Your task to perform on an android device: change alarm snooze length Image 0: 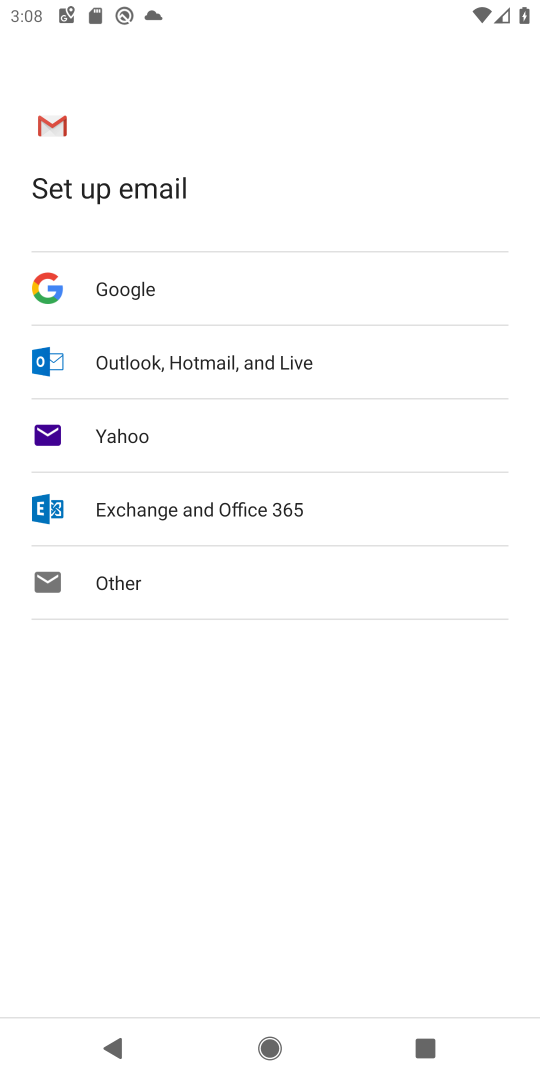
Step 0: press home button
Your task to perform on an android device: change alarm snooze length Image 1: 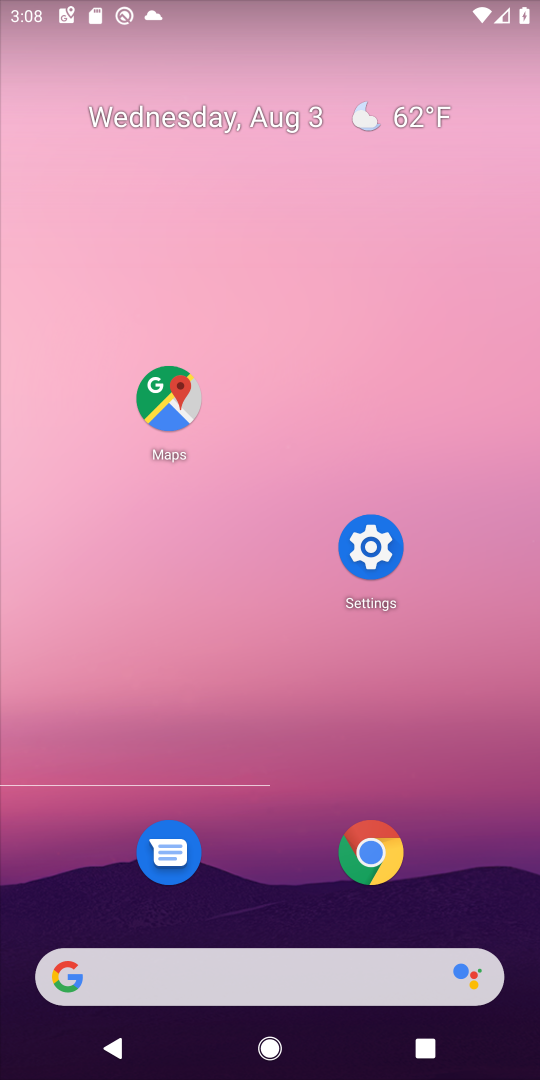
Step 1: drag from (218, 974) to (220, 109)
Your task to perform on an android device: change alarm snooze length Image 2: 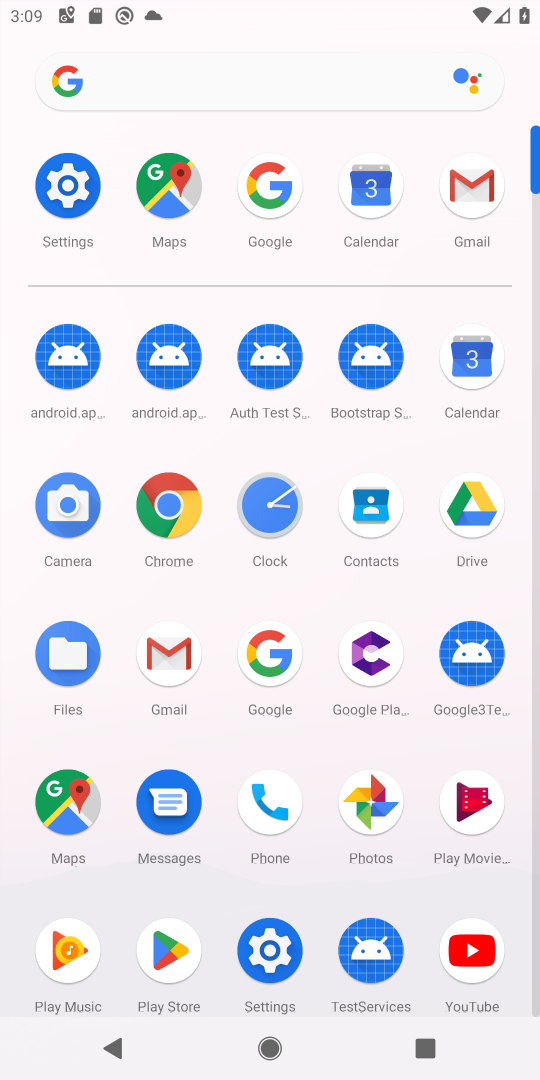
Step 2: click (262, 492)
Your task to perform on an android device: change alarm snooze length Image 3: 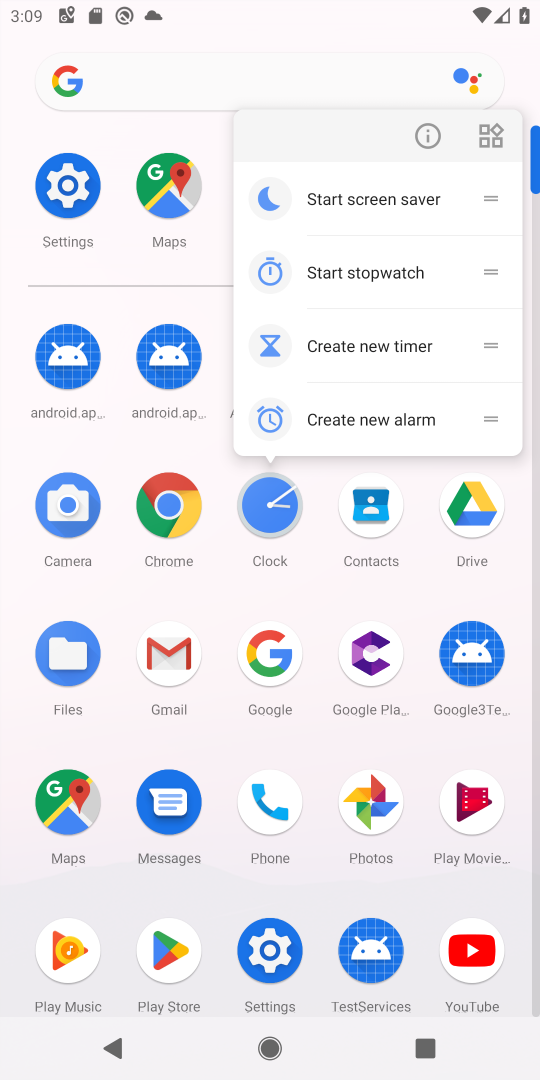
Step 3: click (263, 499)
Your task to perform on an android device: change alarm snooze length Image 4: 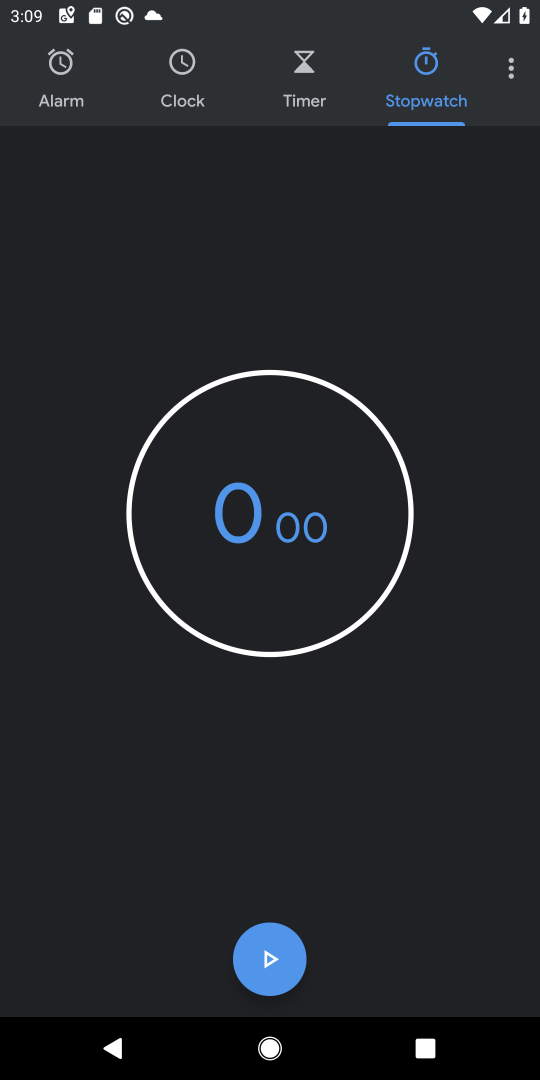
Step 4: click (510, 56)
Your task to perform on an android device: change alarm snooze length Image 5: 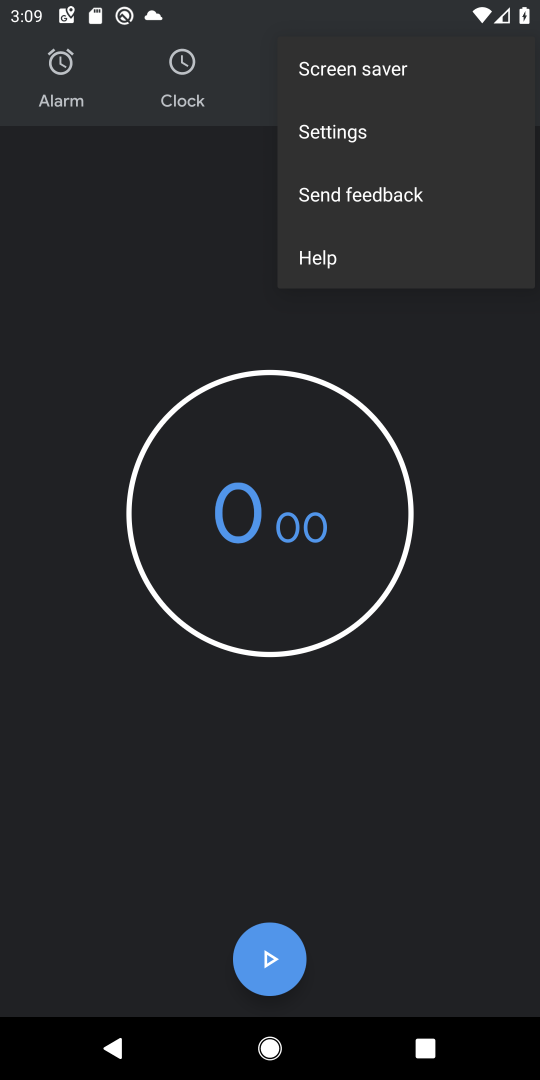
Step 5: click (325, 130)
Your task to perform on an android device: change alarm snooze length Image 6: 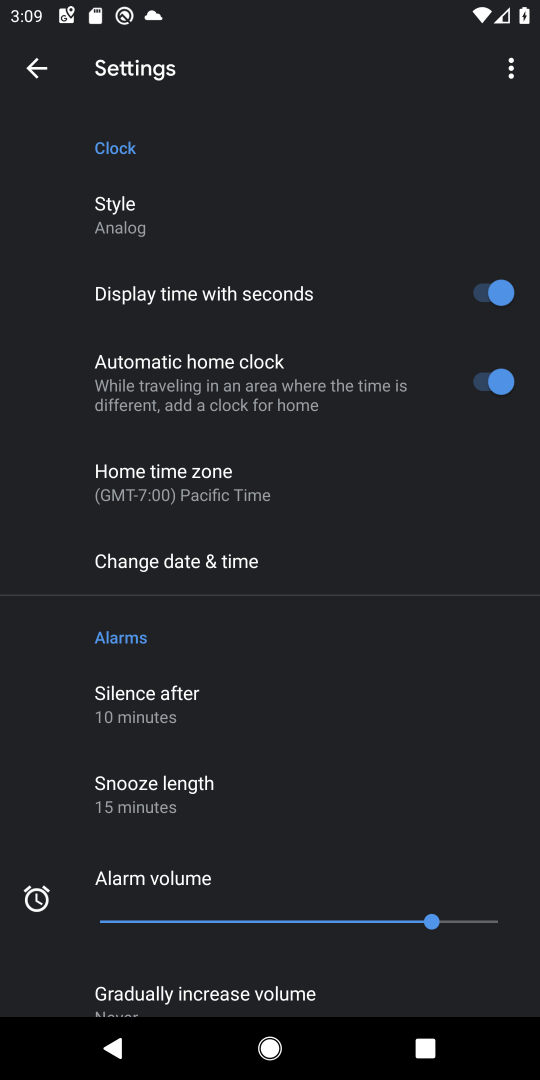
Step 6: click (159, 796)
Your task to perform on an android device: change alarm snooze length Image 7: 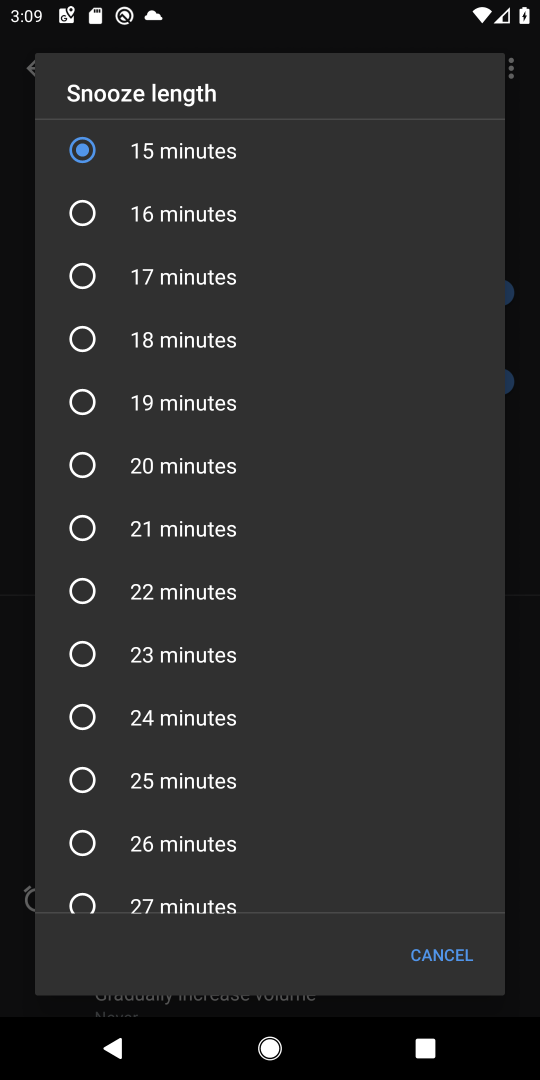
Step 7: click (77, 465)
Your task to perform on an android device: change alarm snooze length Image 8: 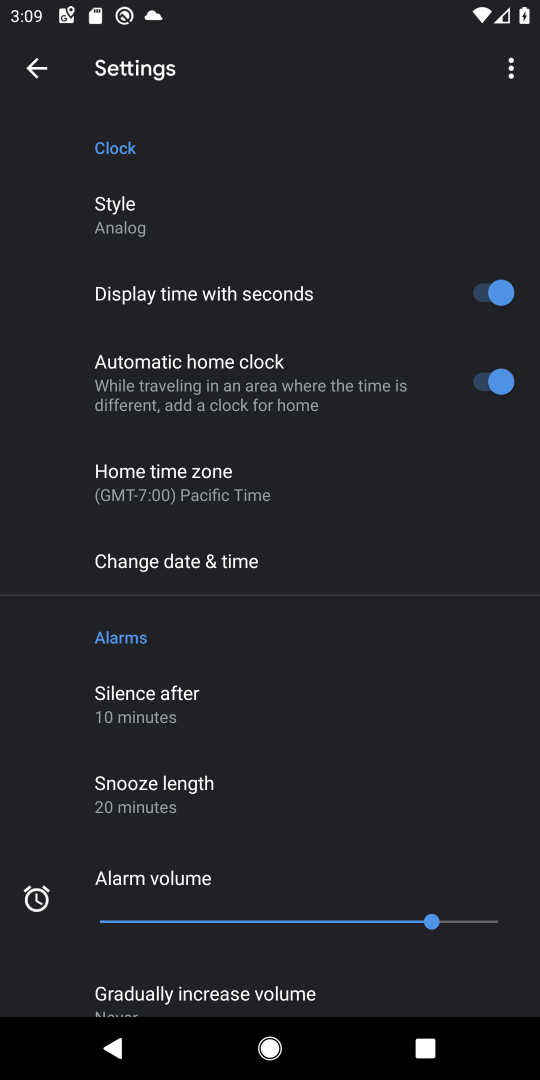
Step 8: task complete